Your task to perform on an android device: open app "Flipkart Online Shopping App" (install if not already installed) and go to login screen Image 0: 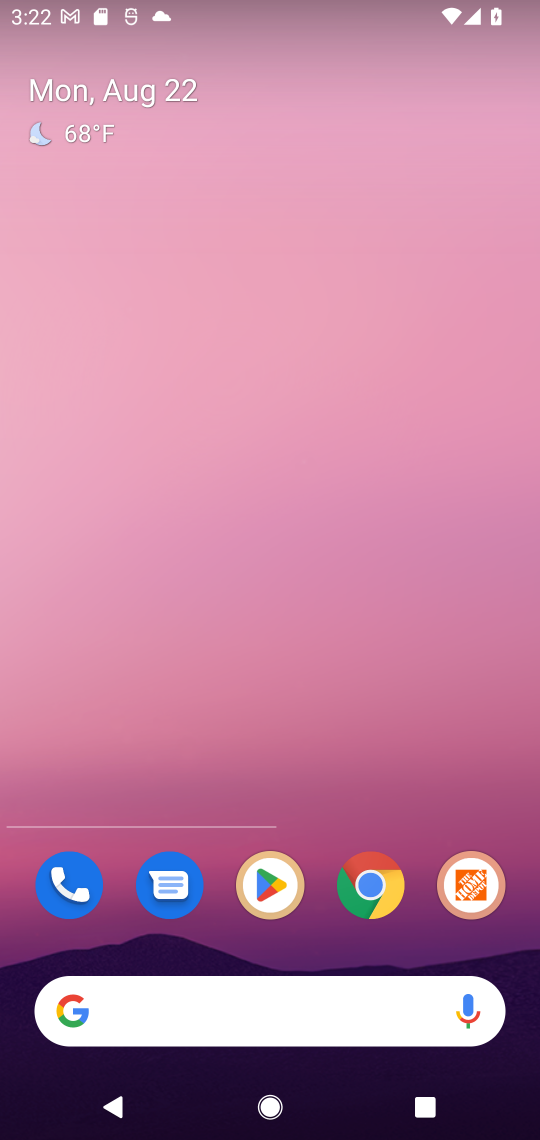
Step 0: press home button
Your task to perform on an android device: open app "Flipkart Online Shopping App" (install if not already installed) and go to login screen Image 1: 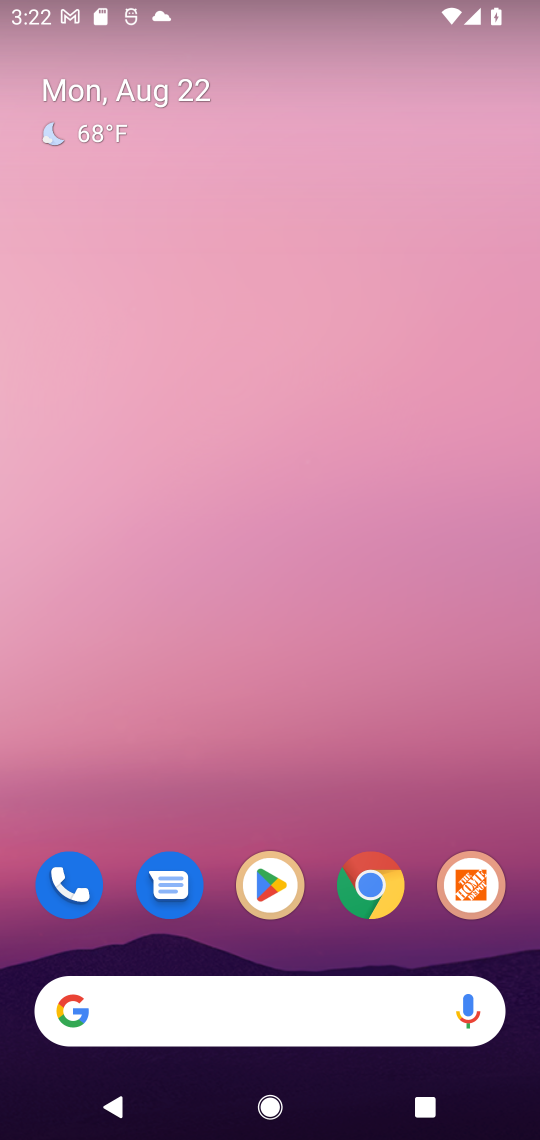
Step 1: click (269, 873)
Your task to perform on an android device: open app "Flipkart Online Shopping App" (install if not already installed) and go to login screen Image 2: 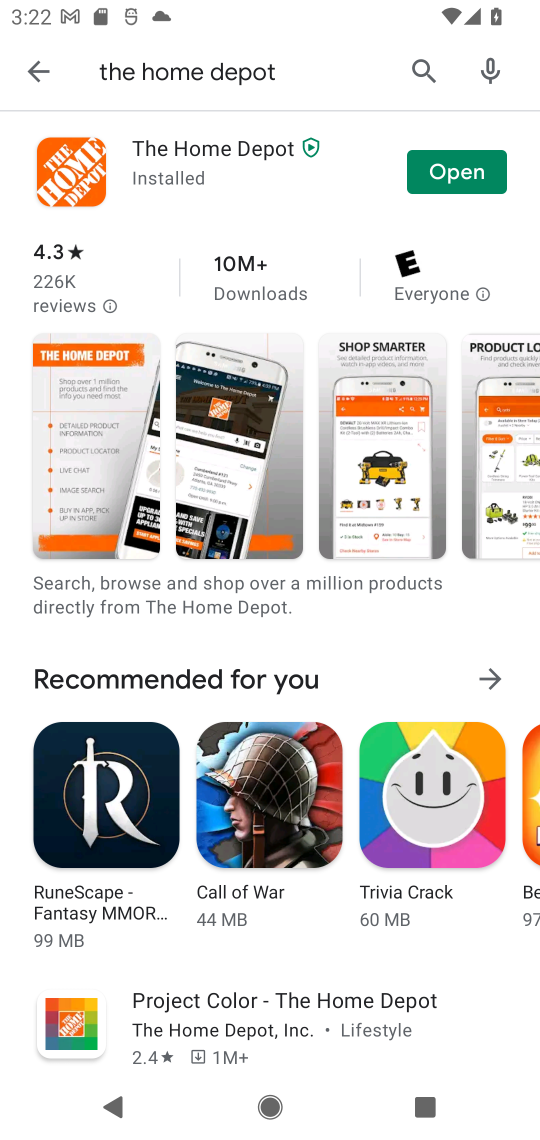
Step 2: click (403, 53)
Your task to perform on an android device: open app "Flipkart Online Shopping App" (install if not already installed) and go to login screen Image 3: 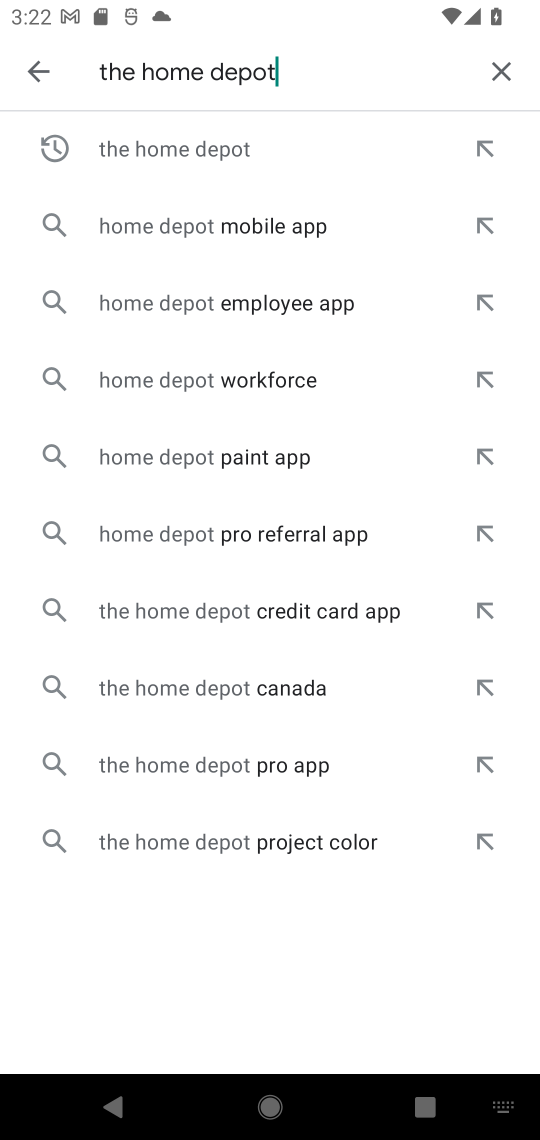
Step 3: click (509, 72)
Your task to perform on an android device: open app "Flipkart Online Shopping App" (install if not already installed) and go to login screen Image 4: 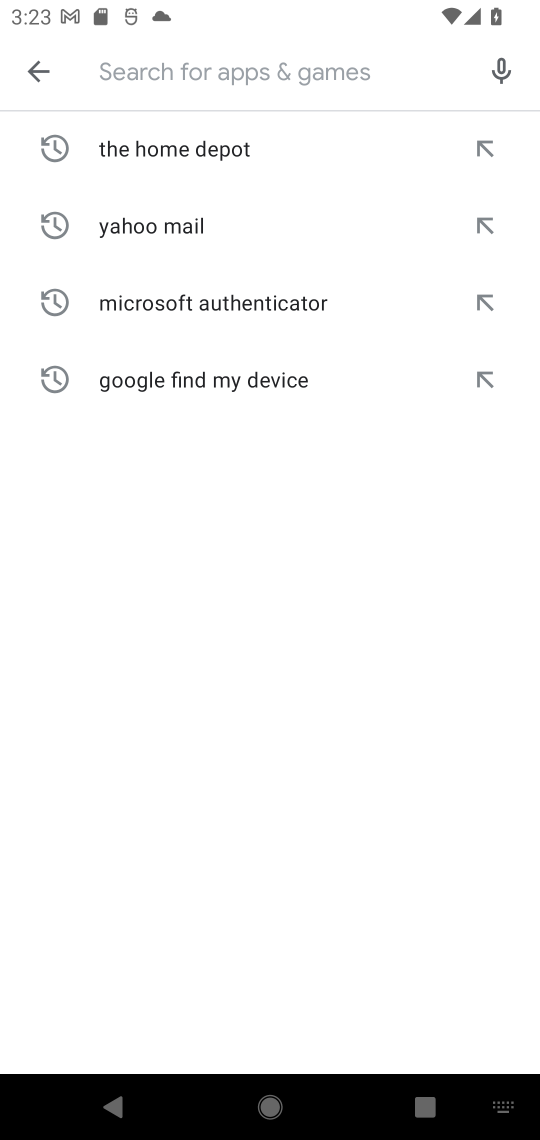
Step 4: type "Flipkart Online Shopping App"
Your task to perform on an android device: open app "Flipkart Online Shopping App" (install if not already installed) and go to login screen Image 5: 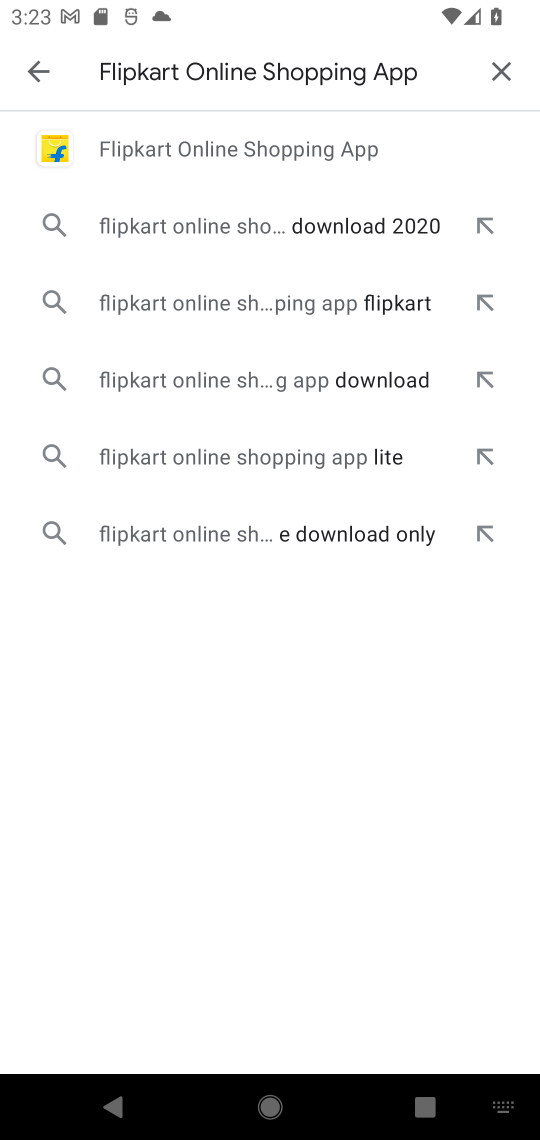
Step 5: click (183, 136)
Your task to perform on an android device: open app "Flipkart Online Shopping App" (install if not already installed) and go to login screen Image 6: 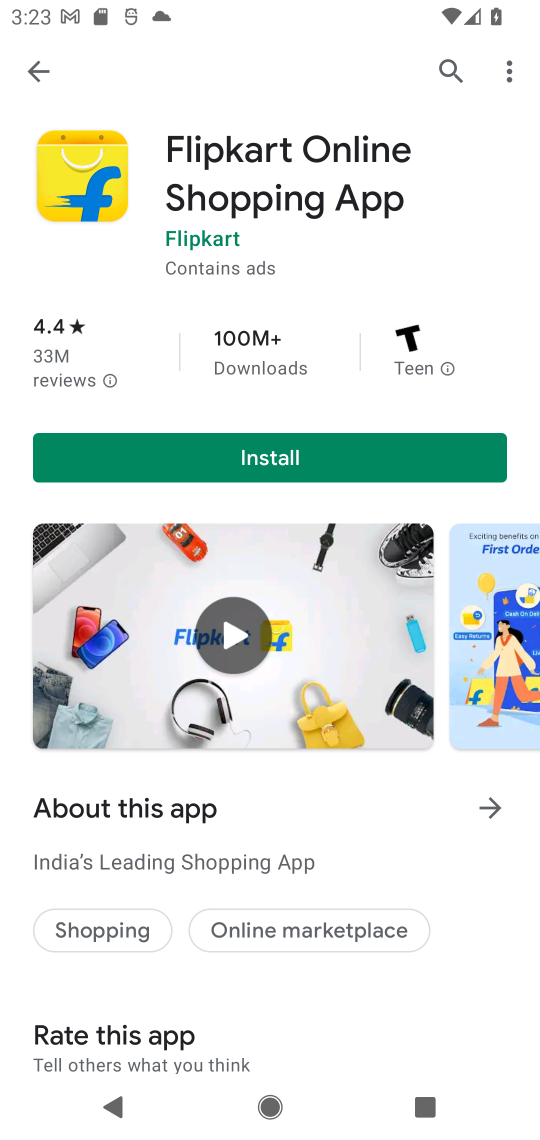
Step 6: click (268, 455)
Your task to perform on an android device: open app "Flipkart Online Shopping App" (install if not already installed) and go to login screen Image 7: 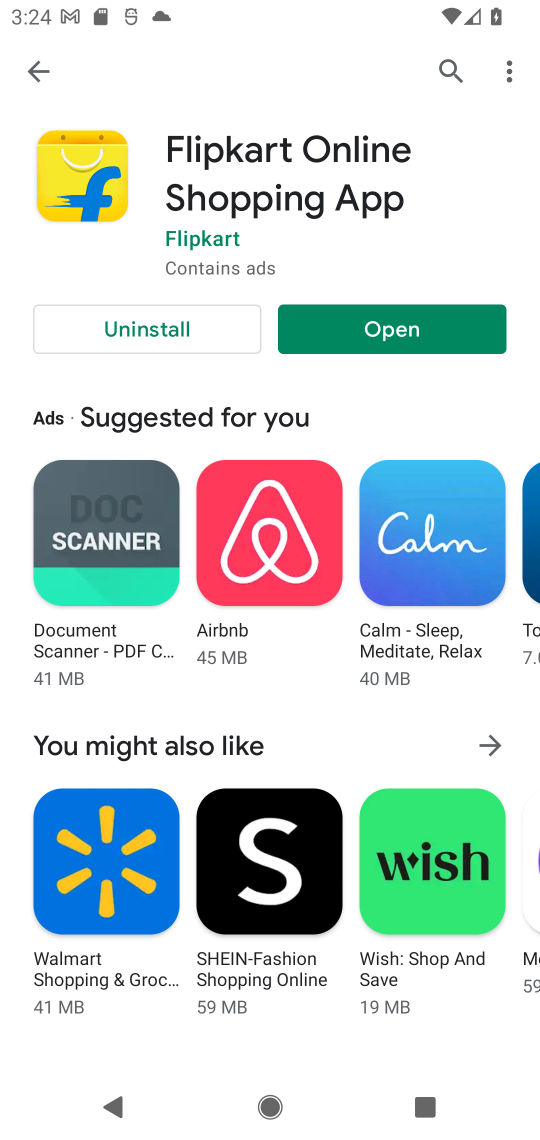
Step 7: click (397, 332)
Your task to perform on an android device: open app "Flipkart Online Shopping App" (install if not already installed) and go to login screen Image 8: 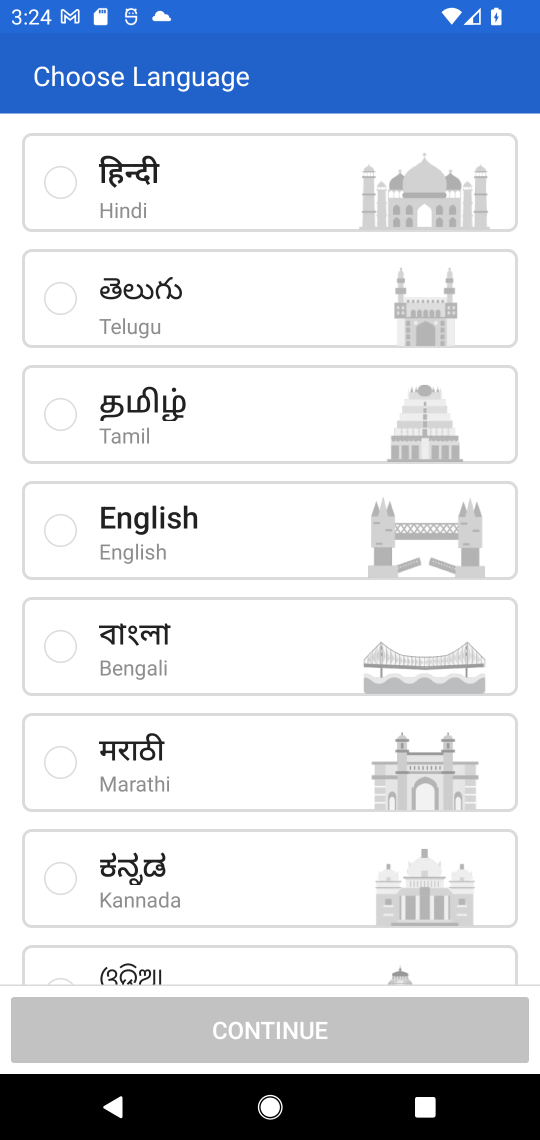
Step 8: click (48, 531)
Your task to perform on an android device: open app "Flipkart Online Shopping App" (install if not already installed) and go to login screen Image 9: 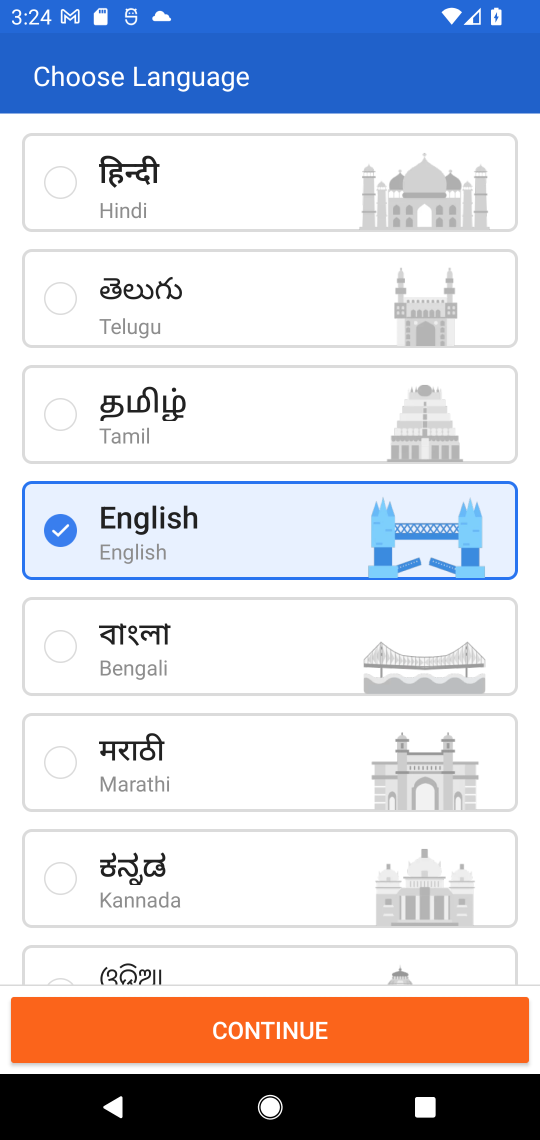
Step 9: click (229, 1032)
Your task to perform on an android device: open app "Flipkart Online Shopping App" (install if not already installed) and go to login screen Image 10: 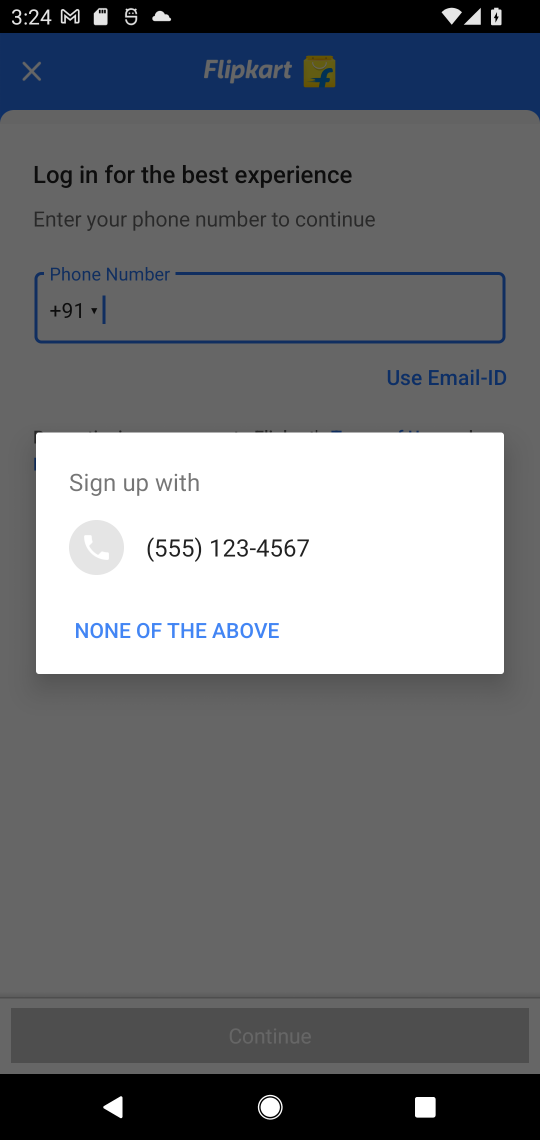
Step 10: task complete